Your task to perform on an android device: Go to location settings Image 0: 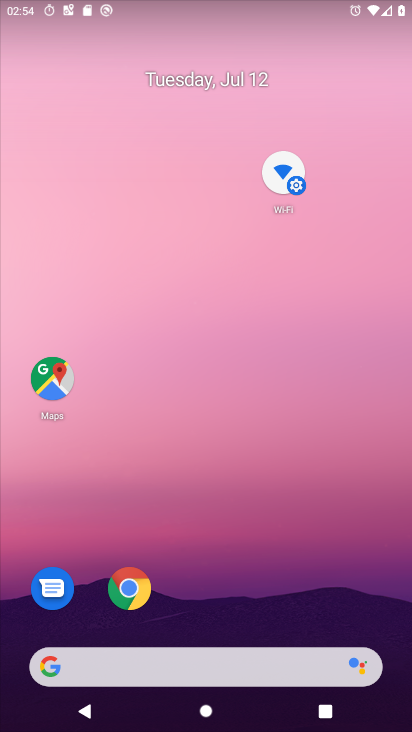
Step 0: drag from (205, 475) to (205, 146)
Your task to perform on an android device: Go to location settings Image 1: 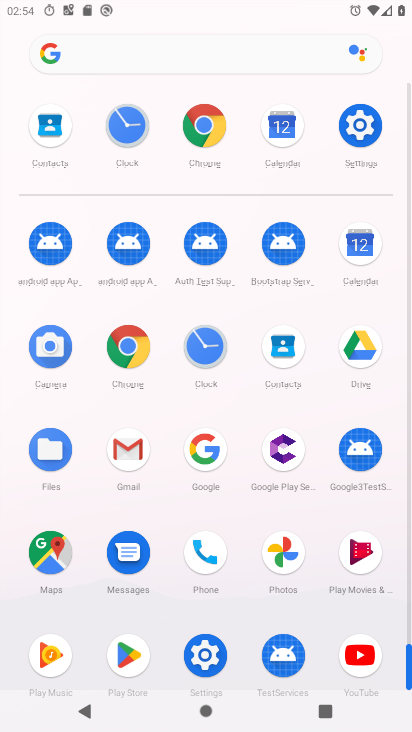
Step 1: click (364, 131)
Your task to perform on an android device: Go to location settings Image 2: 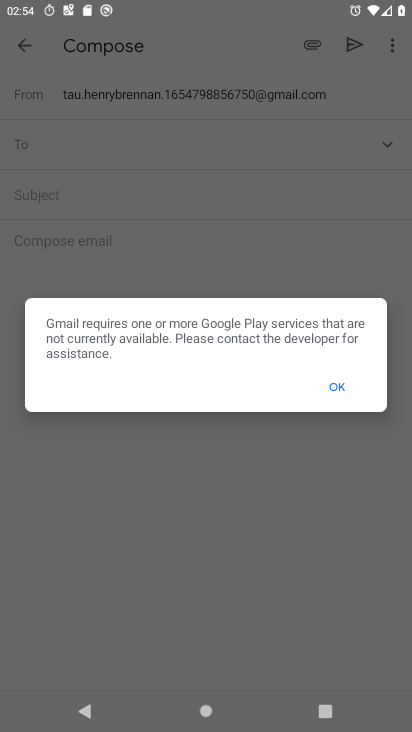
Step 2: press home button
Your task to perform on an android device: Go to location settings Image 3: 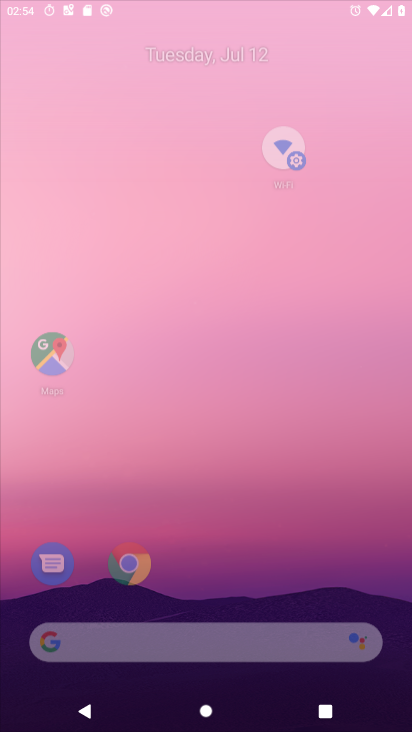
Step 3: drag from (218, 607) to (286, 61)
Your task to perform on an android device: Go to location settings Image 4: 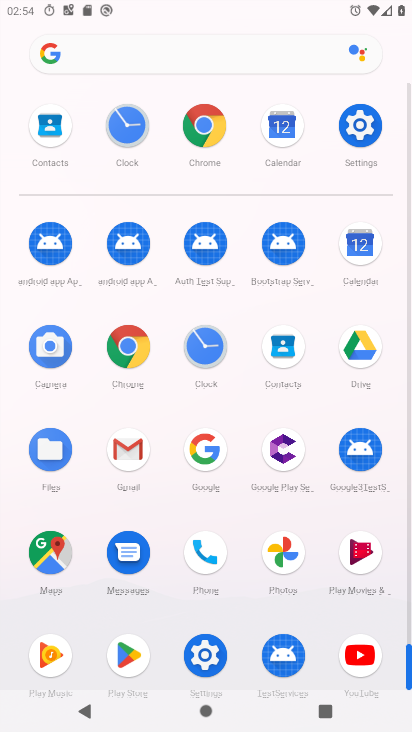
Step 4: click (197, 662)
Your task to perform on an android device: Go to location settings Image 5: 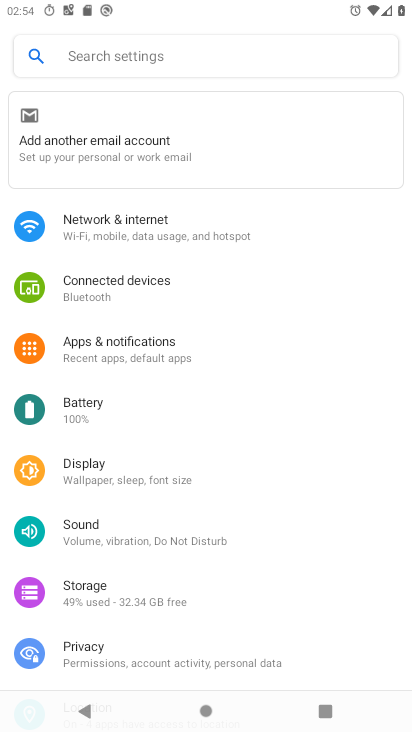
Step 5: drag from (120, 606) to (203, 67)
Your task to perform on an android device: Go to location settings Image 6: 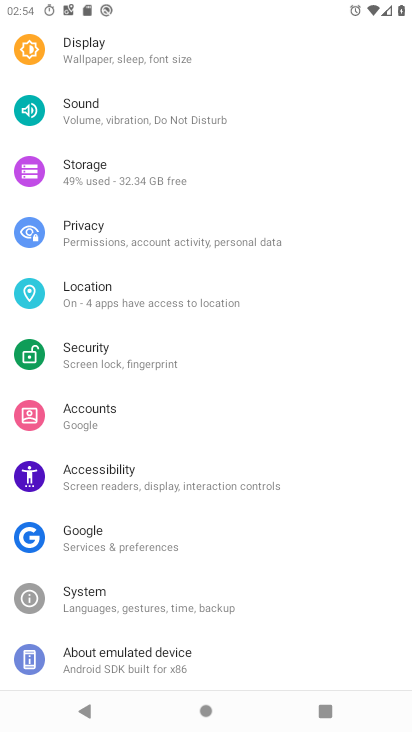
Step 6: click (112, 645)
Your task to perform on an android device: Go to location settings Image 7: 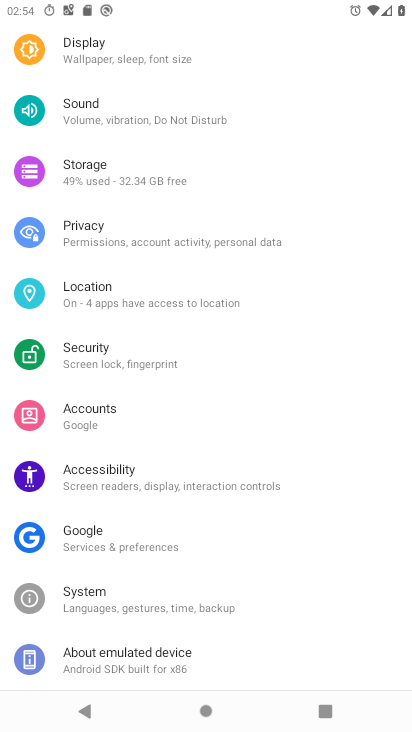
Step 7: click (111, 644)
Your task to perform on an android device: Go to location settings Image 8: 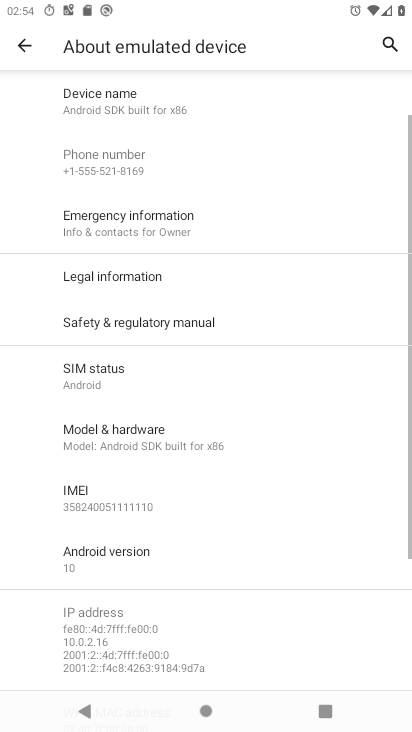
Step 8: drag from (157, 586) to (220, 213)
Your task to perform on an android device: Go to location settings Image 9: 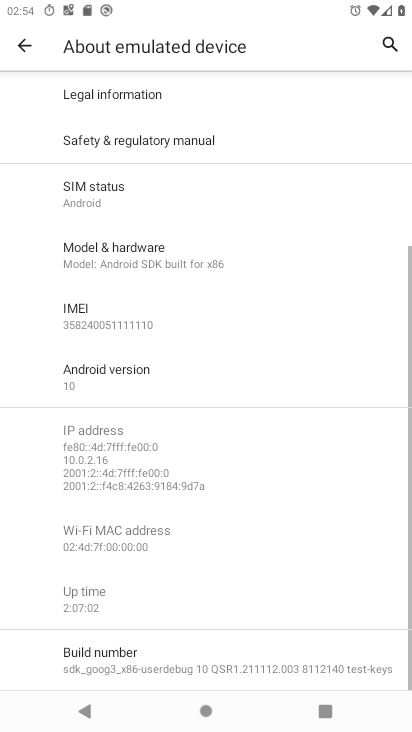
Step 9: drag from (222, 554) to (209, 349)
Your task to perform on an android device: Go to location settings Image 10: 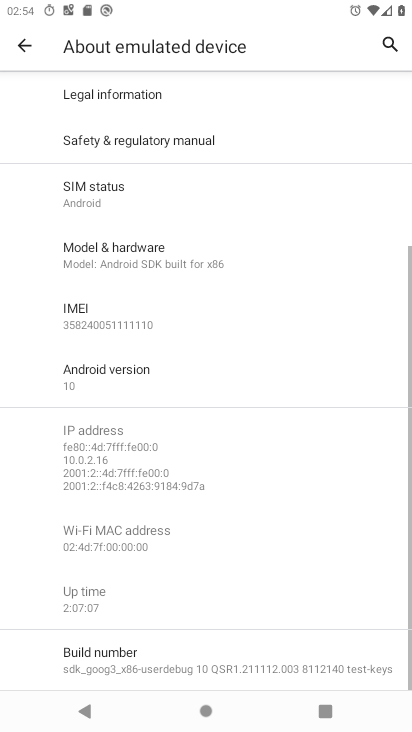
Step 10: click (12, 48)
Your task to perform on an android device: Go to location settings Image 11: 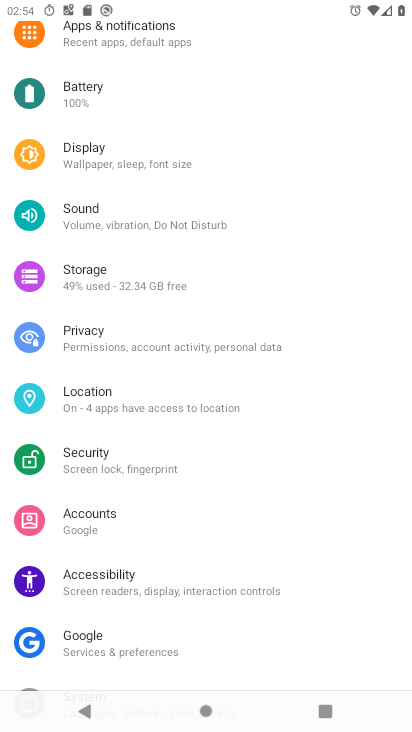
Step 11: click (117, 390)
Your task to perform on an android device: Go to location settings Image 12: 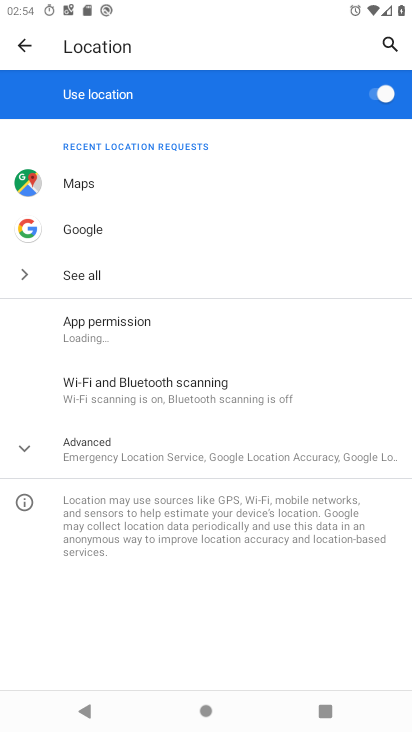
Step 12: task complete